Your task to perform on an android device: Open settings on Google Maps Image 0: 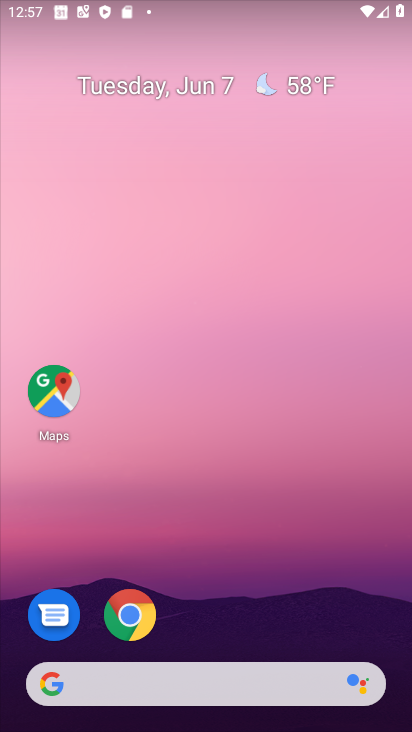
Step 0: press home button
Your task to perform on an android device: Open settings on Google Maps Image 1: 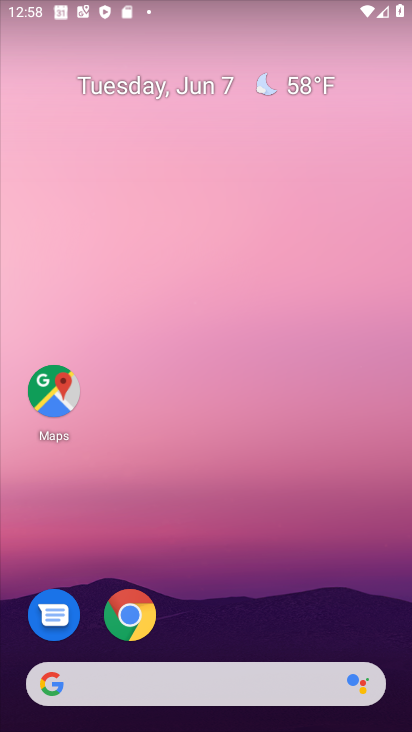
Step 1: click (53, 395)
Your task to perform on an android device: Open settings on Google Maps Image 2: 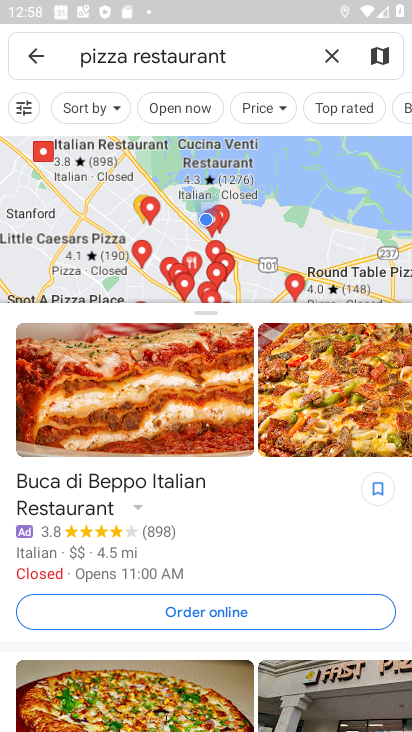
Step 2: click (331, 52)
Your task to perform on an android device: Open settings on Google Maps Image 3: 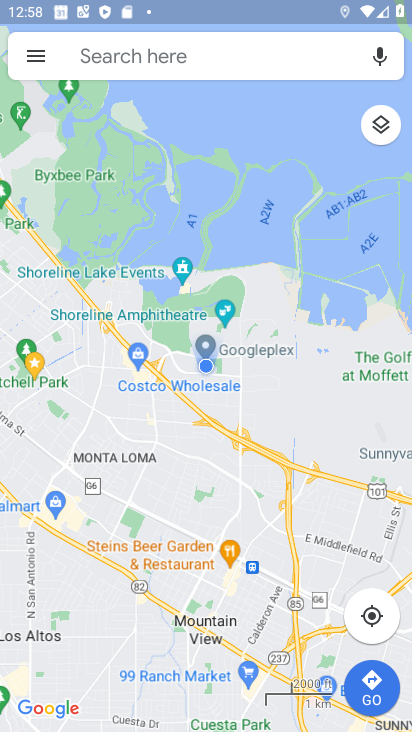
Step 3: click (39, 58)
Your task to perform on an android device: Open settings on Google Maps Image 4: 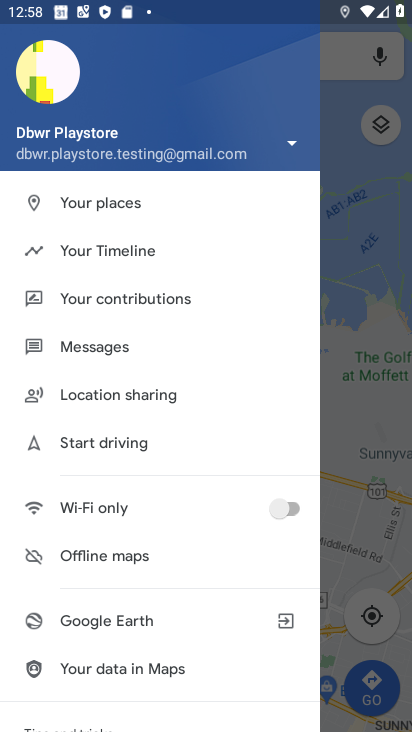
Step 4: drag from (141, 512) to (172, 386)
Your task to perform on an android device: Open settings on Google Maps Image 5: 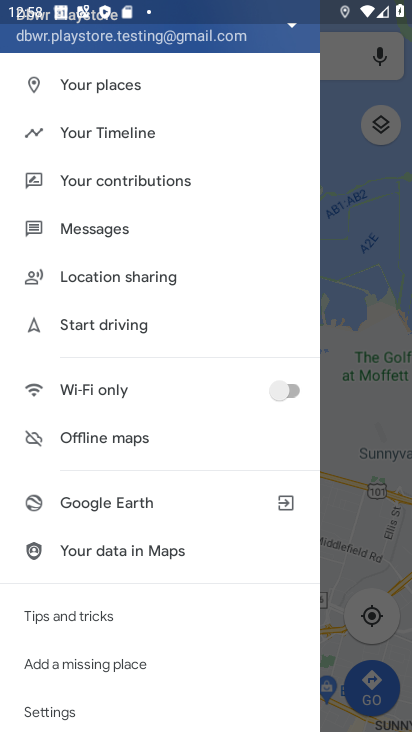
Step 5: drag from (127, 564) to (176, 407)
Your task to perform on an android device: Open settings on Google Maps Image 6: 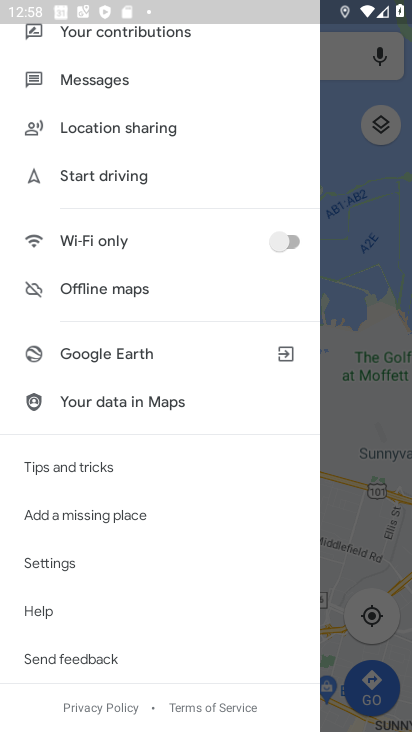
Step 6: click (70, 562)
Your task to perform on an android device: Open settings on Google Maps Image 7: 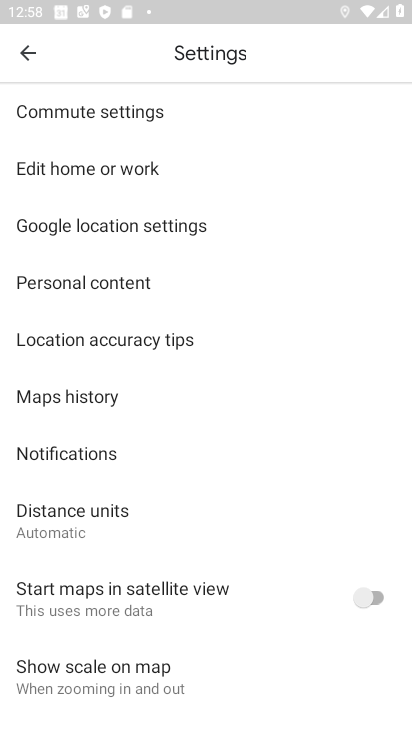
Step 7: task complete